Your task to perform on an android device: add a contact Image 0: 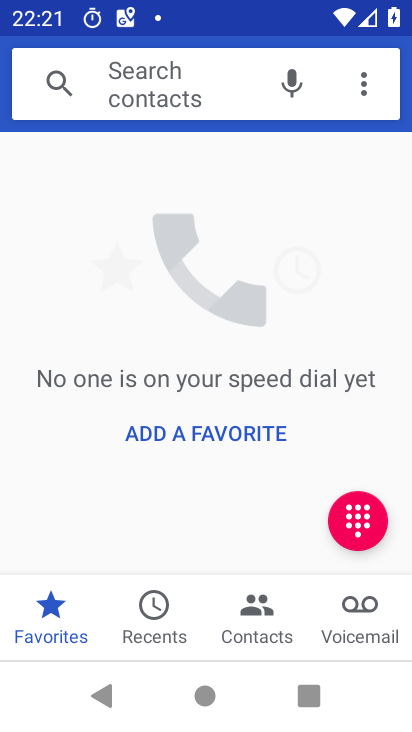
Step 0: press home button
Your task to perform on an android device: add a contact Image 1: 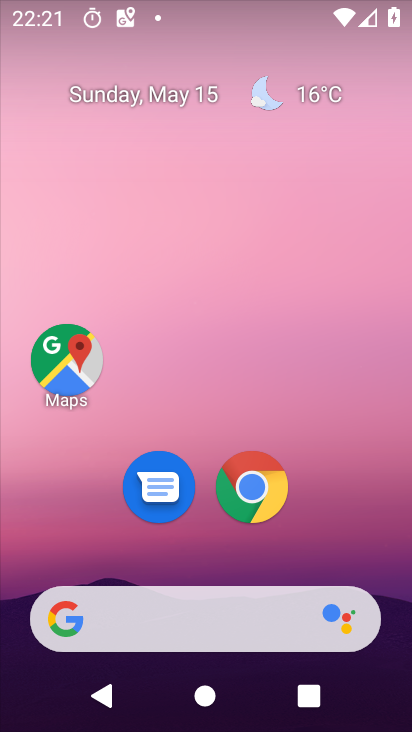
Step 1: drag from (399, 543) to (400, 356)
Your task to perform on an android device: add a contact Image 2: 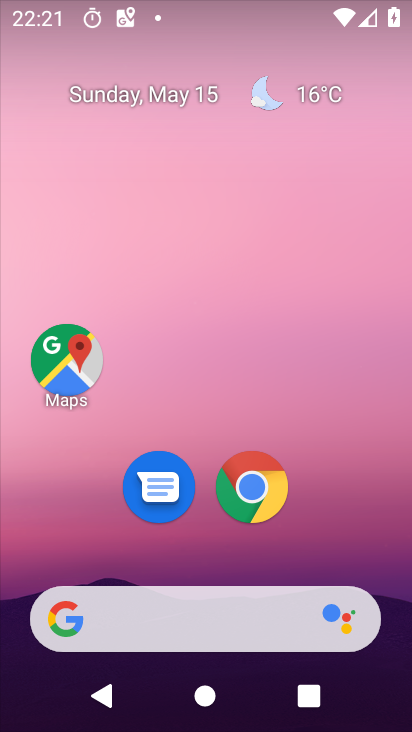
Step 2: drag from (391, 692) to (404, 223)
Your task to perform on an android device: add a contact Image 3: 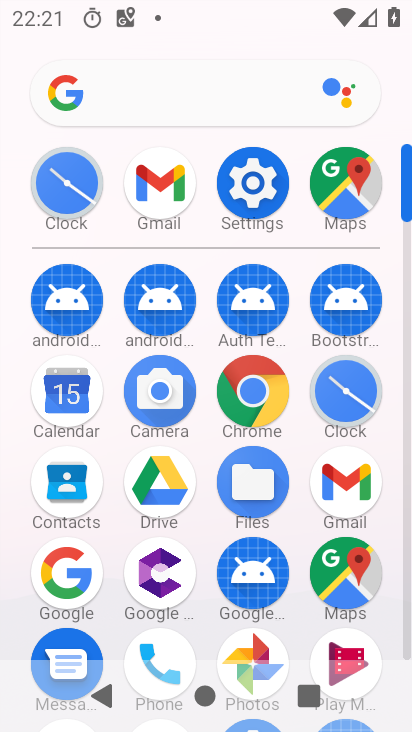
Step 3: click (76, 502)
Your task to perform on an android device: add a contact Image 4: 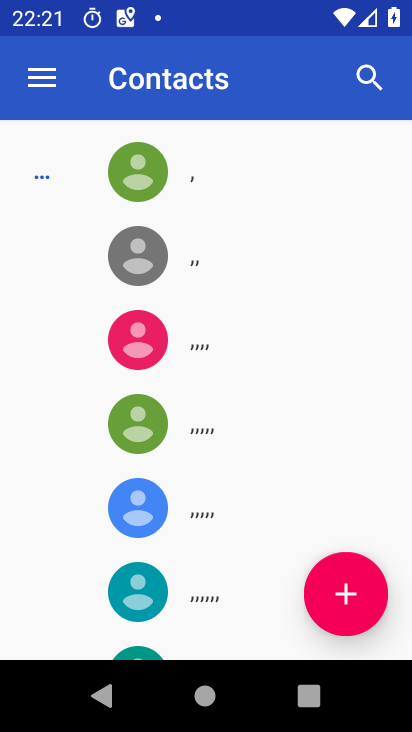
Step 4: click (328, 588)
Your task to perform on an android device: add a contact Image 5: 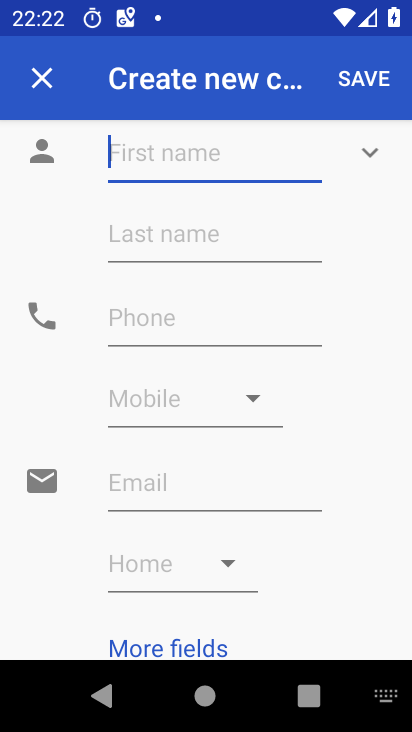
Step 5: type "hcgcych nj"
Your task to perform on an android device: add a contact Image 6: 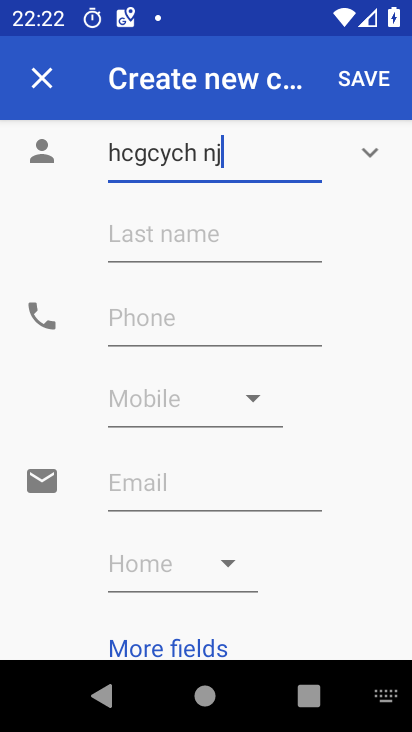
Step 6: click (218, 250)
Your task to perform on an android device: add a contact Image 7: 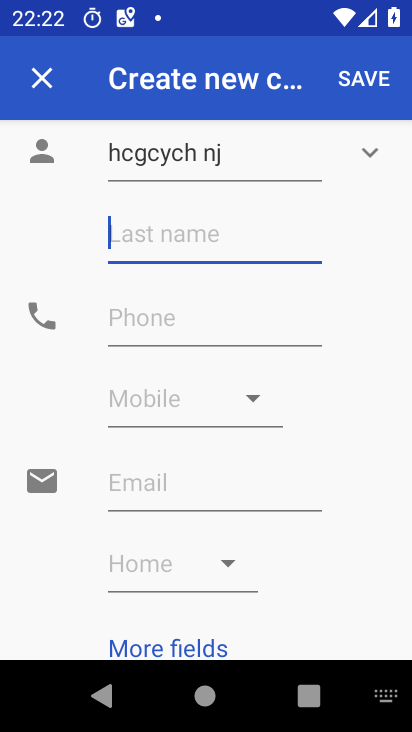
Step 7: type "tgvedcfgh"
Your task to perform on an android device: add a contact Image 8: 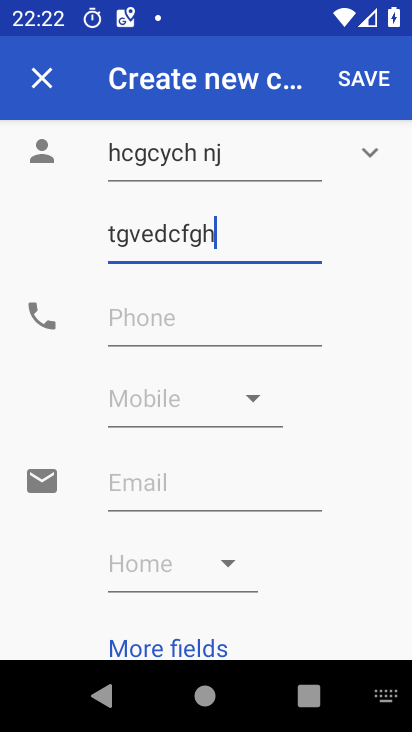
Step 8: click (142, 326)
Your task to perform on an android device: add a contact Image 9: 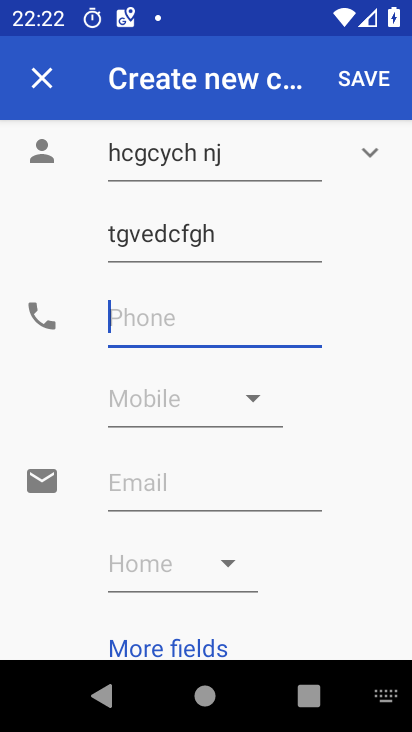
Step 9: type "456709874589"
Your task to perform on an android device: add a contact Image 10: 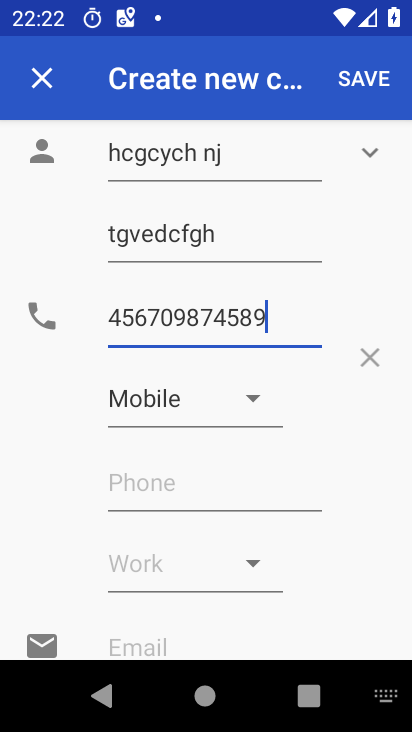
Step 10: click (355, 76)
Your task to perform on an android device: add a contact Image 11: 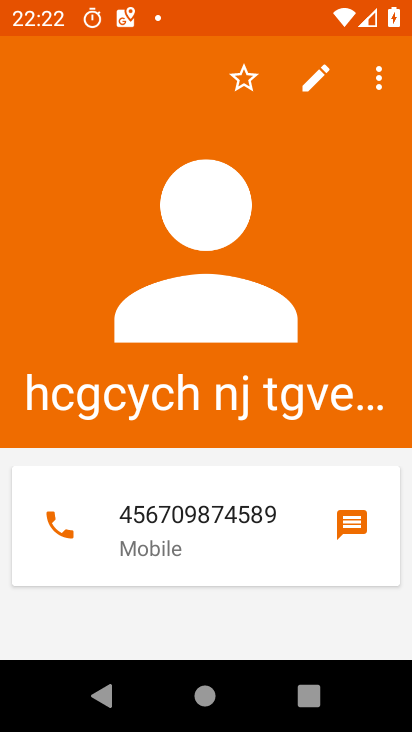
Step 11: task complete